Your task to perform on an android device: turn off notifications settings in the gmail app Image 0: 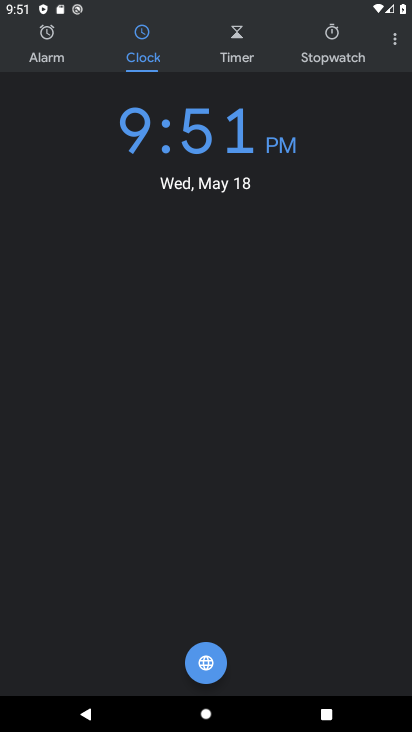
Step 0: press home button
Your task to perform on an android device: turn off notifications settings in the gmail app Image 1: 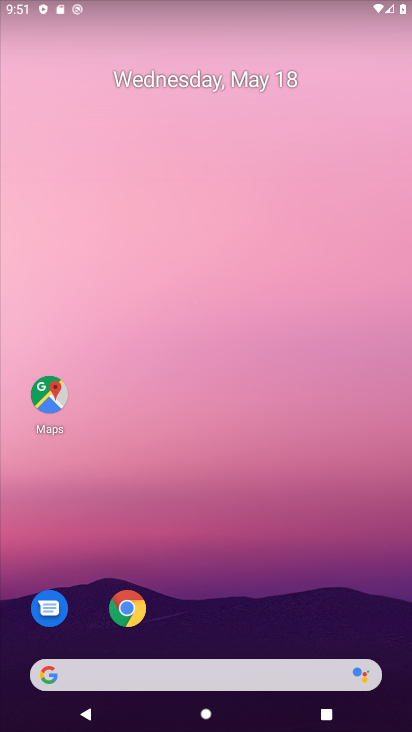
Step 1: drag from (189, 630) to (220, 167)
Your task to perform on an android device: turn off notifications settings in the gmail app Image 2: 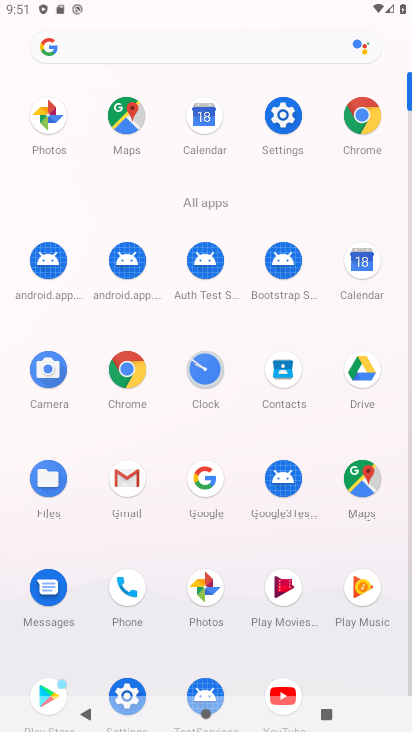
Step 2: click (130, 491)
Your task to perform on an android device: turn off notifications settings in the gmail app Image 3: 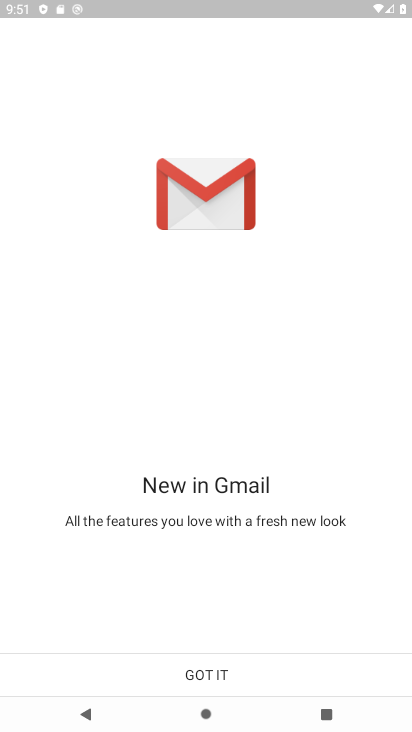
Step 3: click (227, 673)
Your task to perform on an android device: turn off notifications settings in the gmail app Image 4: 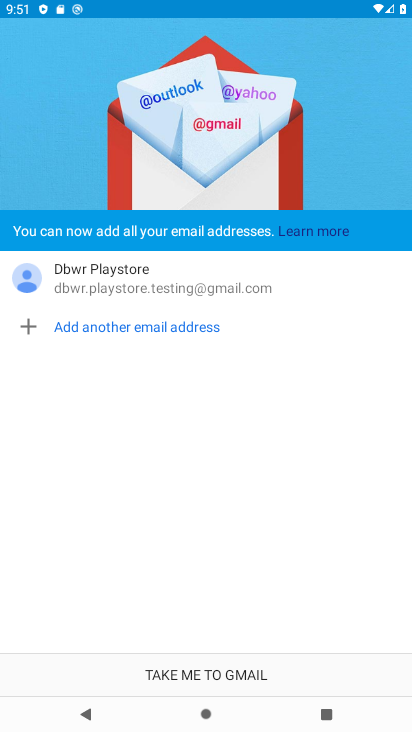
Step 4: click (227, 673)
Your task to perform on an android device: turn off notifications settings in the gmail app Image 5: 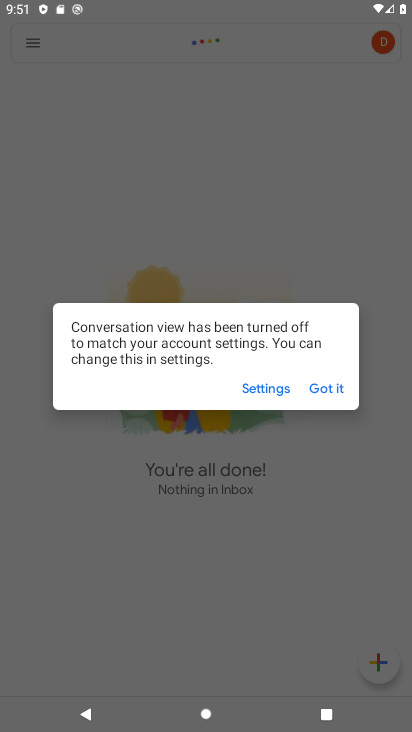
Step 5: click (327, 390)
Your task to perform on an android device: turn off notifications settings in the gmail app Image 6: 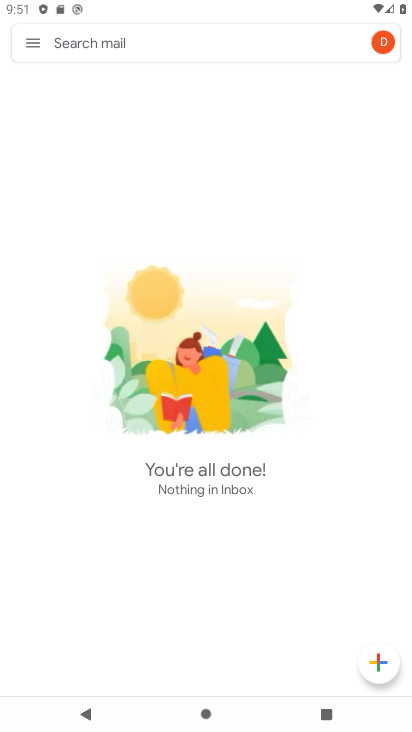
Step 6: click (35, 40)
Your task to perform on an android device: turn off notifications settings in the gmail app Image 7: 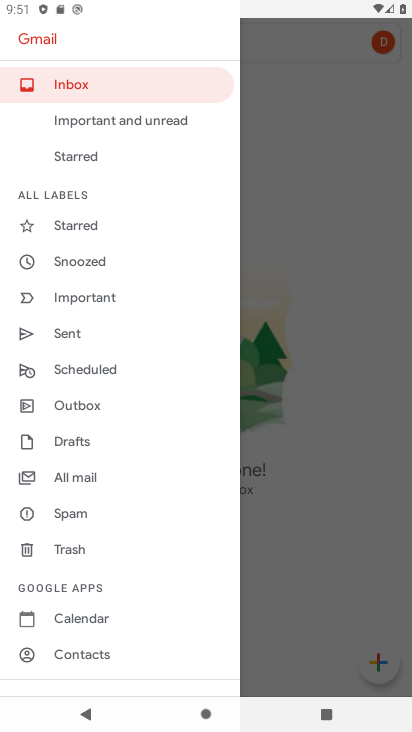
Step 7: drag from (105, 622) to (130, 306)
Your task to perform on an android device: turn off notifications settings in the gmail app Image 8: 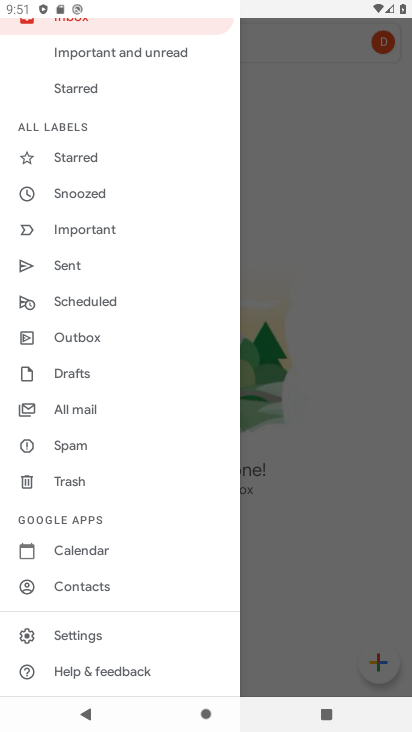
Step 8: click (93, 639)
Your task to perform on an android device: turn off notifications settings in the gmail app Image 9: 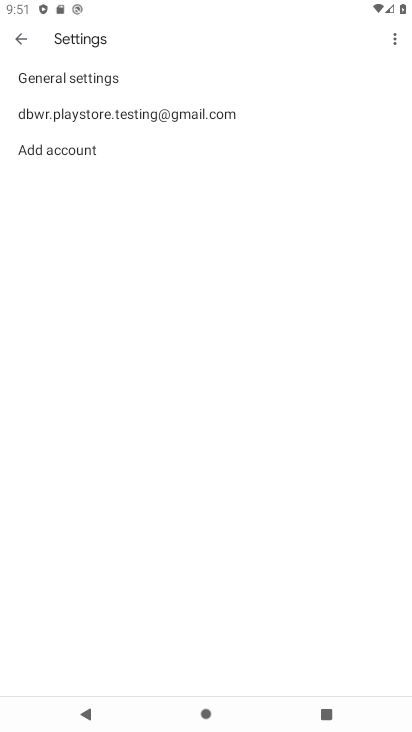
Step 9: click (94, 78)
Your task to perform on an android device: turn off notifications settings in the gmail app Image 10: 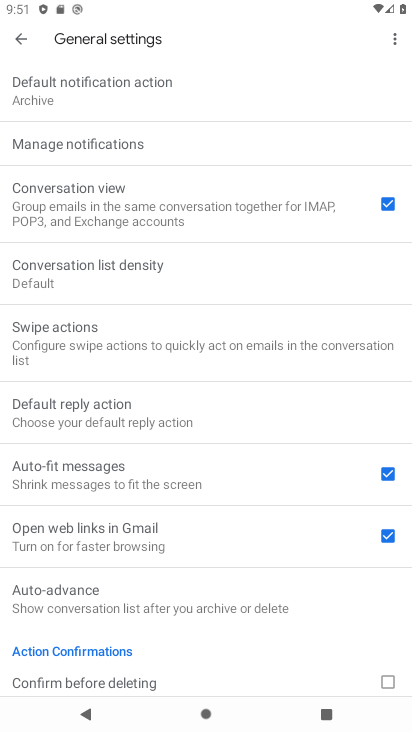
Step 10: click (136, 138)
Your task to perform on an android device: turn off notifications settings in the gmail app Image 11: 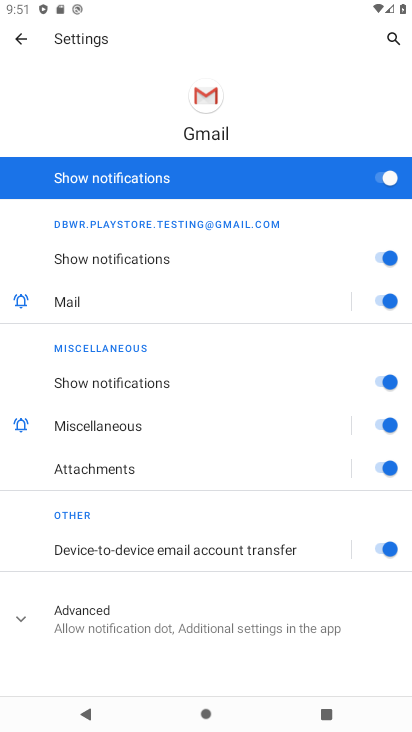
Step 11: click (373, 177)
Your task to perform on an android device: turn off notifications settings in the gmail app Image 12: 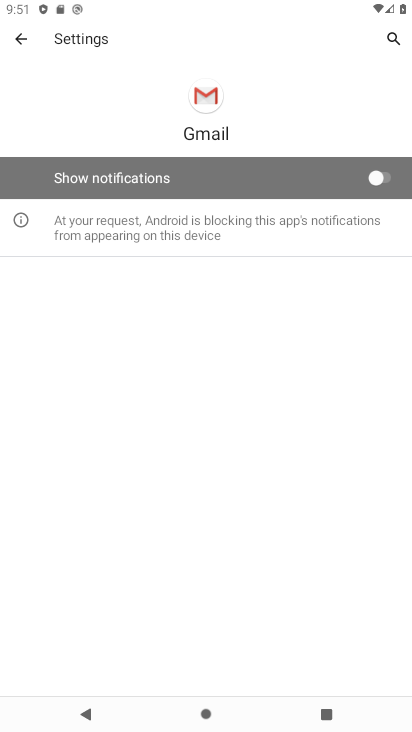
Step 12: task complete